Your task to perform on an android device: Is it going to rain today? Image 0: 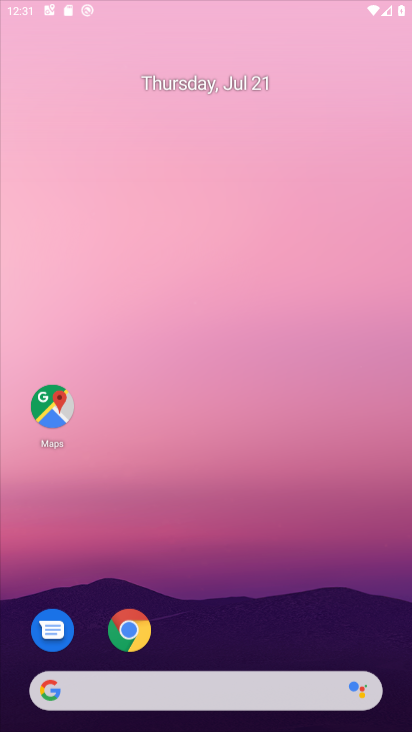
Step 0: click (270, 269)
Your task to perform on an android device: Is it going to rain today? Image 1: 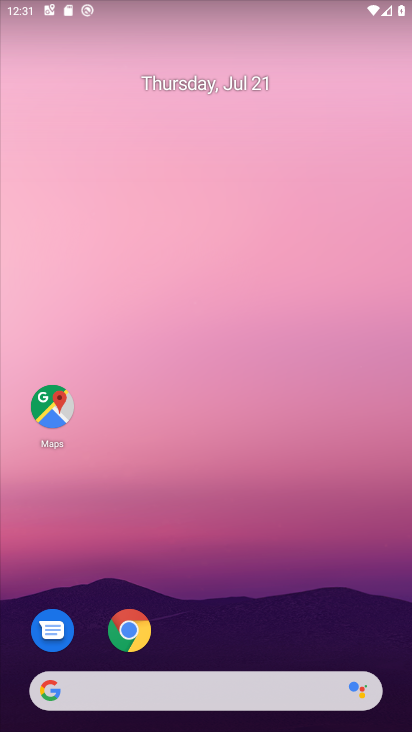
Step 1: press home button
Your task to perform on an android device: Is it going to rain today? Image 2: 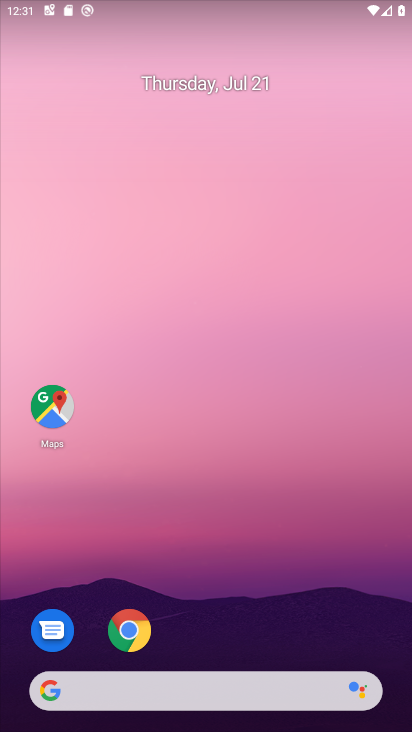
Step 2: drag from (238, 622) to (223, 227)
Your task to perform on an android device: Is it going to rain today? Image 3: 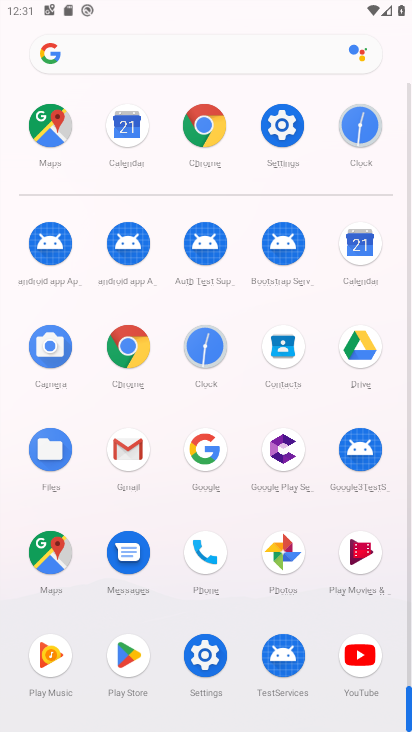
Step 3: click (117, 59)
Your task to perform on an android device: Is it going to rain today? Image 4: 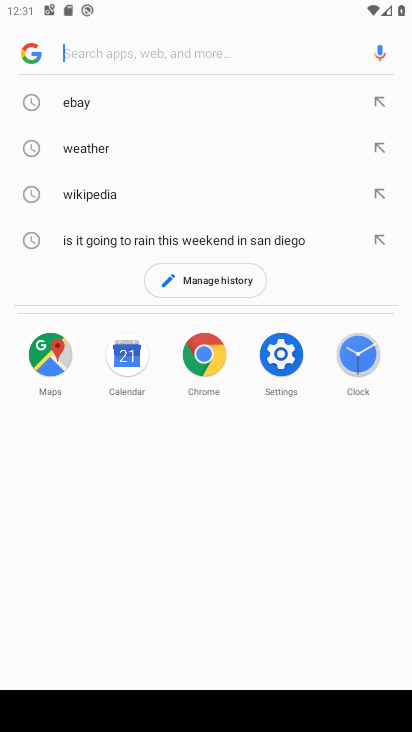
Step 4: type "Is it going to rain today?"
Your task to perform on an android device: Is it going to rain today? Image 5: 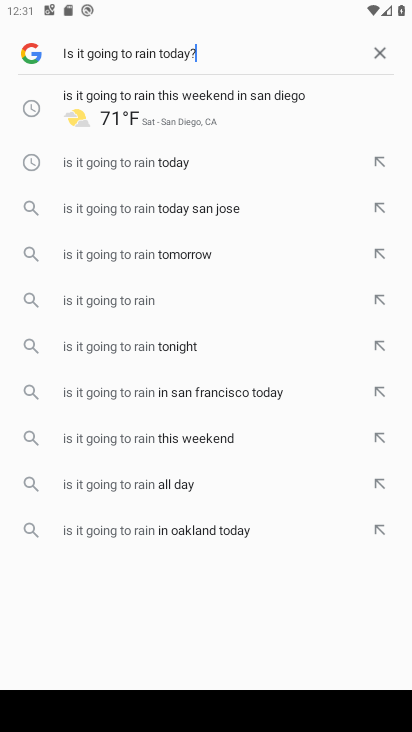
Step 5: type ""
Your task to perform on an android device: Is it going to rain today? Image 6: 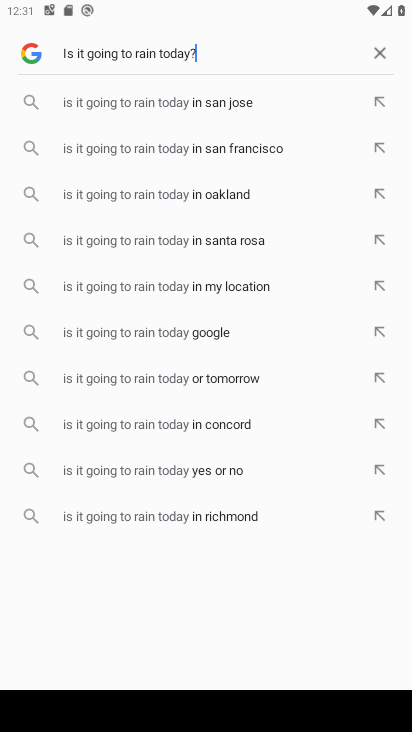
Step 6: click (127, 100)
Your task to perform on an android device: Is it going to rain today? Image 7: 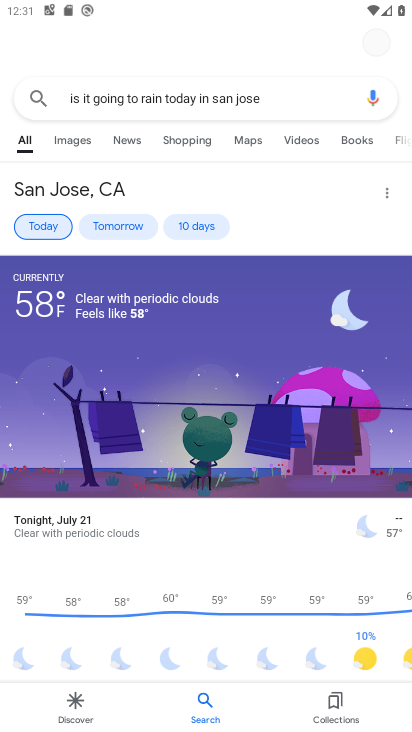
Step 7: task complete